Your task to perform on an android device: turn off notifications settings in the gmail app Image 0: 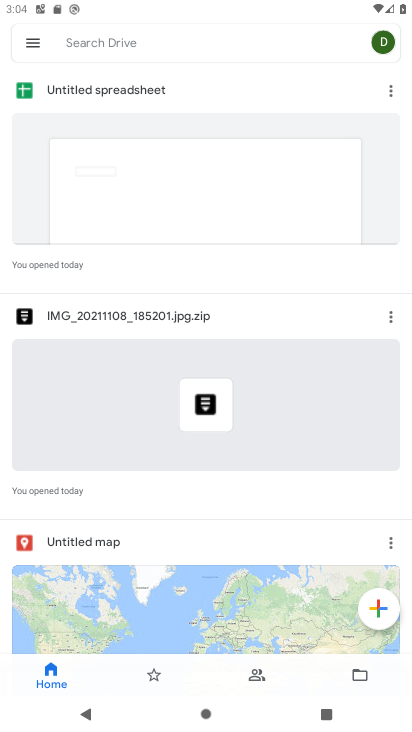
Step 0: press home button
Your task to perform on an android device: turn off notifications settings in the gmail app Image 1: 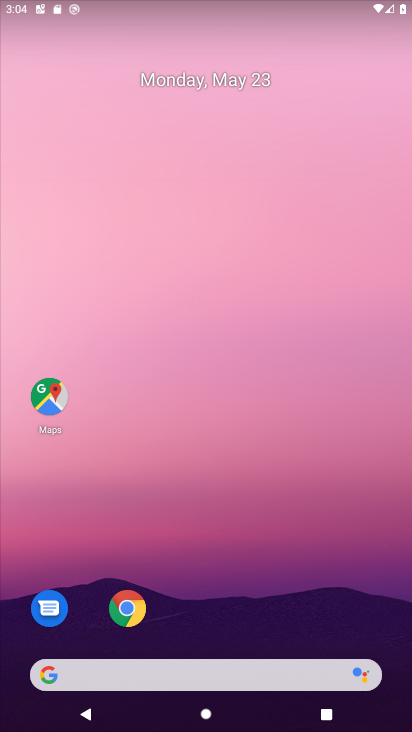
Step 1: drag from (242, 637) to (190, 86)
Your task to perform on an android device: turn off notifications settings in the gmail app Image 2: 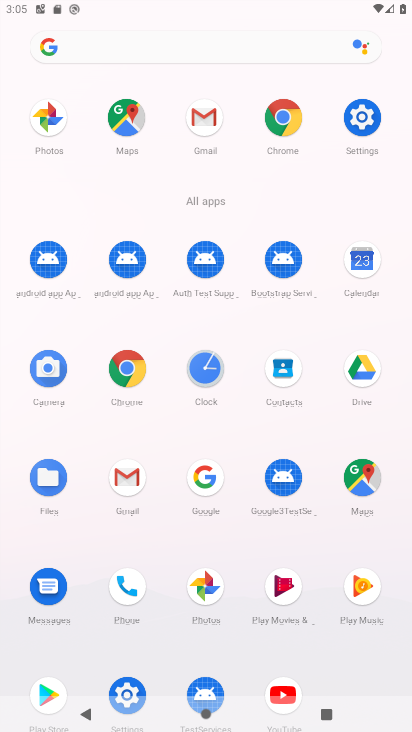
Step 2: click (205, 121)
Your task to perform on an android device: turn off notifications settings in the gmail app Image 3: 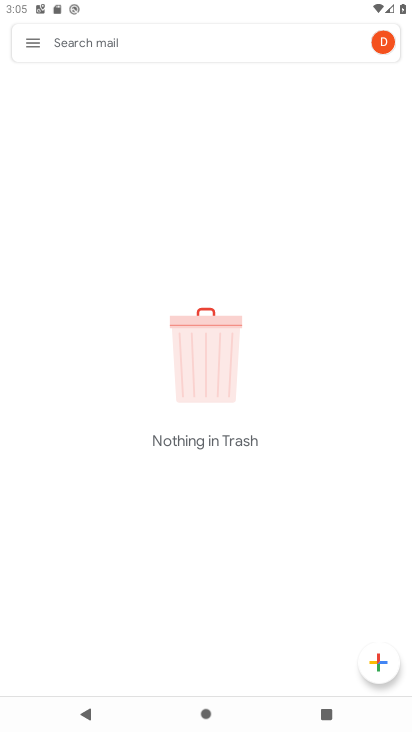
Step 3: click (42, 45)
Your task to perform on an android device: turn off notifications settings in the gmail app Image 4: 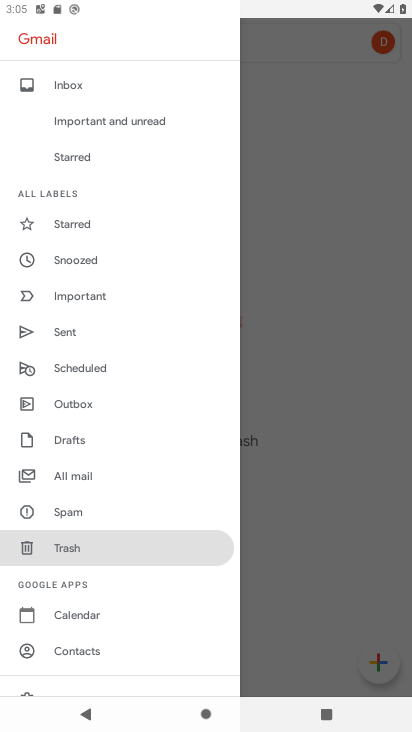
Step 4: drag from (75, 536) to (90, 280)
Your task to perform on an android device: turn off notifications settings in the gmail app Image 5: 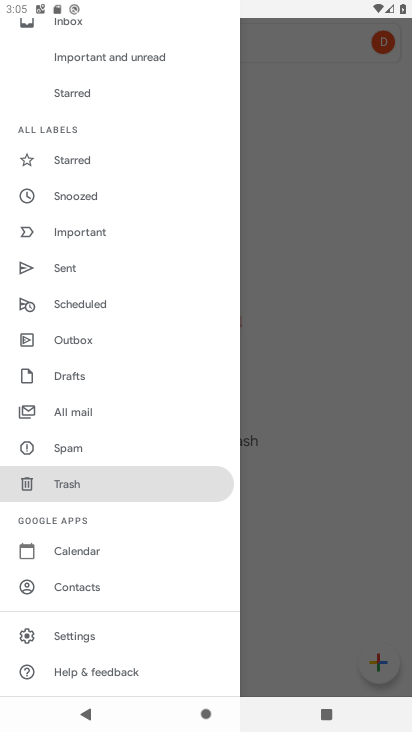
Step 5: click (97, 641)
Your task to perform on an android device: turn off notifications settings in the gmail app Image 6: 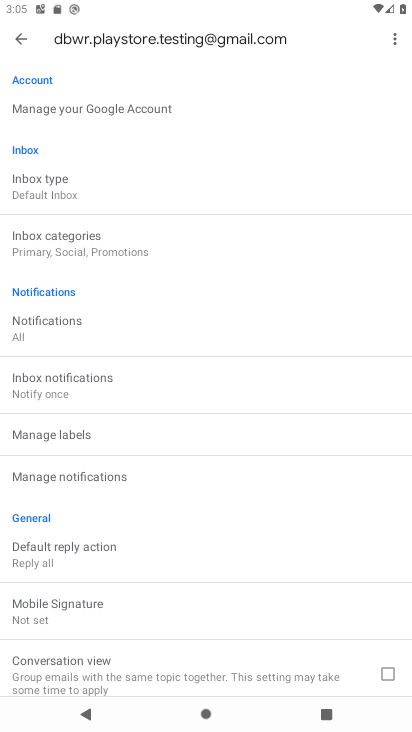
Step 6: click (164, 487)
Your task to perform on an android device: turn off notifications settings in the gmail app Image 7: 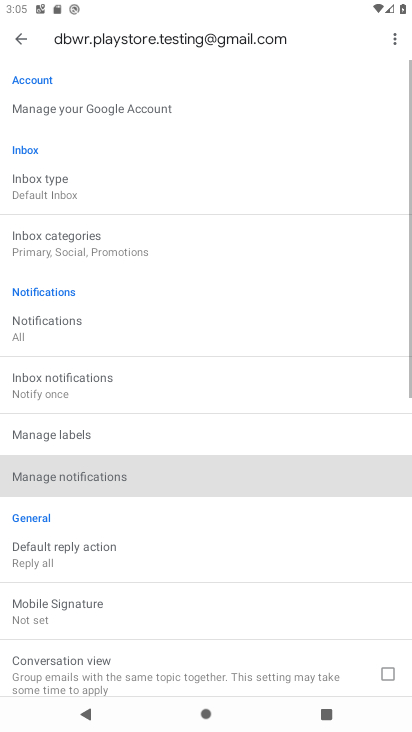
Step 7: click (124, 480)
Your task to perform on an android device: turn off notifications settings in the gmail app Image 8: 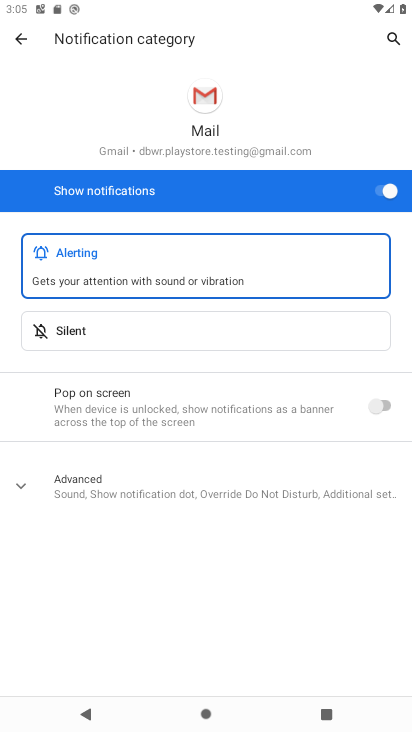
Step 8: click (381, 181)
Your task to perform on an android device: turn off notifications settings in the gmail app Image 9: 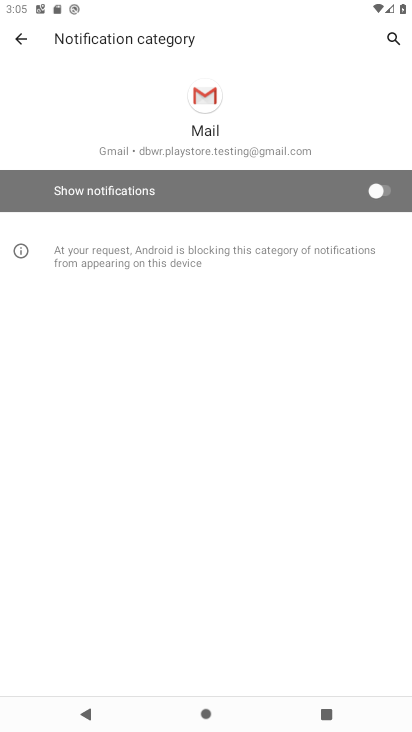
Step 9: task complete